Your task to perform on an android device: Open calendar and show me the first week of next month Image 0: 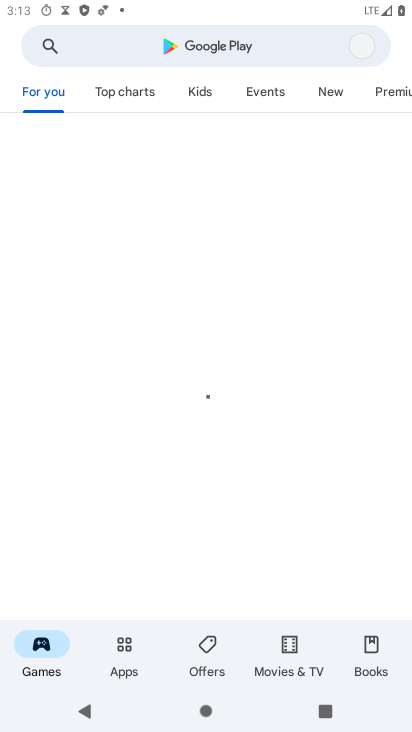
Step 0: press home button
Your task to perform on an android device: Open calendar and show me the first week of next month Image 1: 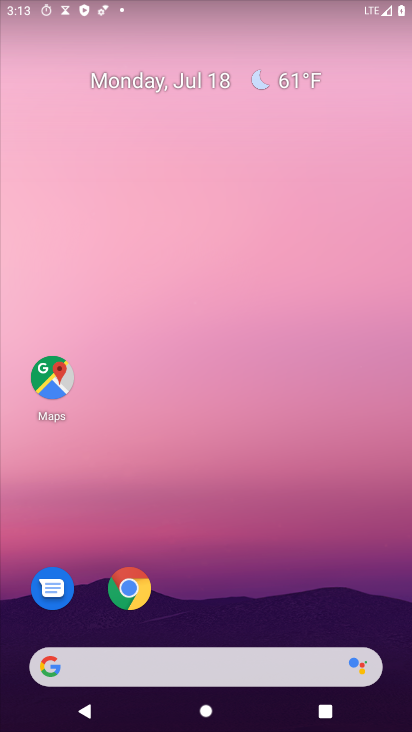
Step 1: drag from (247, 420) to (198, 20)
Your task to perform on an android device: Open calendar and show me the first week of next month Image 2: 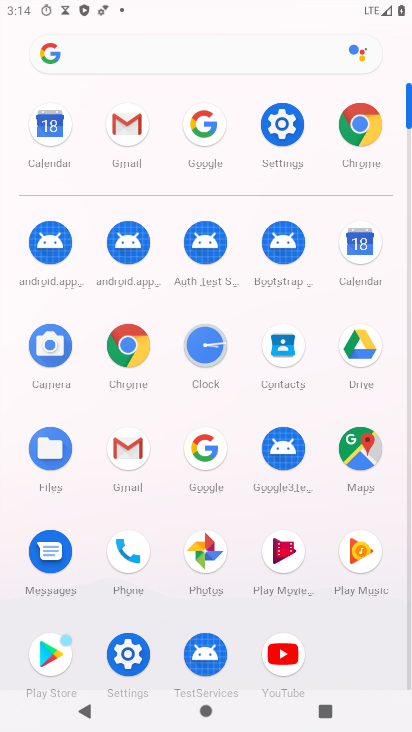
Step 2: click (363, 243)
Your task to perform on an android device: Open calendar and show me the first week of next month Image 3: 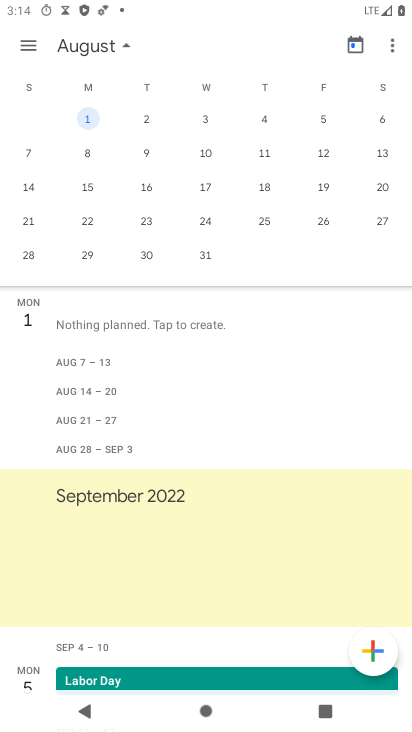
Step 3: drag from (323, 197) to (2, 232)
Your task to perform on an android device: Open calendar and show me the first week of next month Image 4: 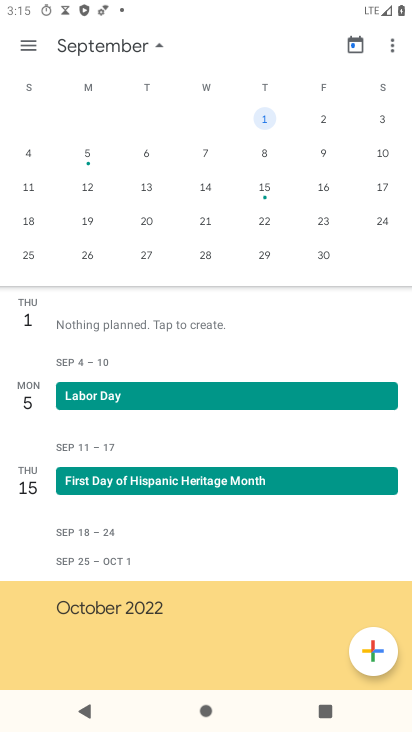
Step 4: click (206, 156)
Your task to perform on an android device: Open calendar and show me the first week of next month Image 5: 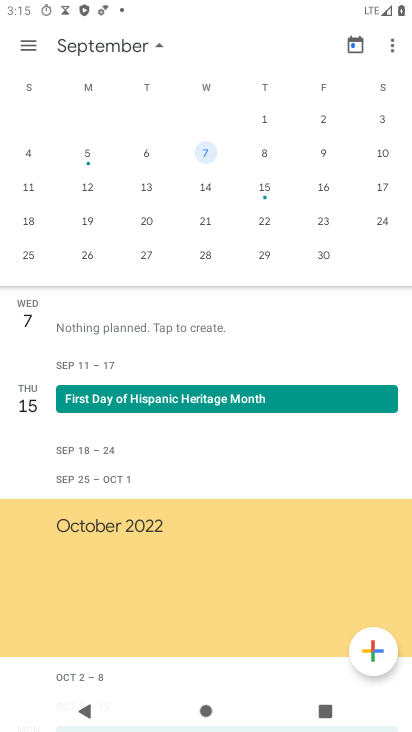
Step 5: task complete